Your task to perform on an android device: check android version Image 0: 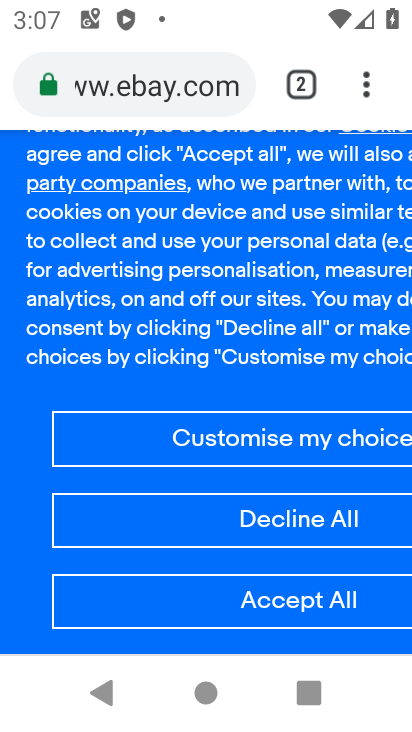
Step 0: press home button
Your task to perform on an android device: check android version Image 1: 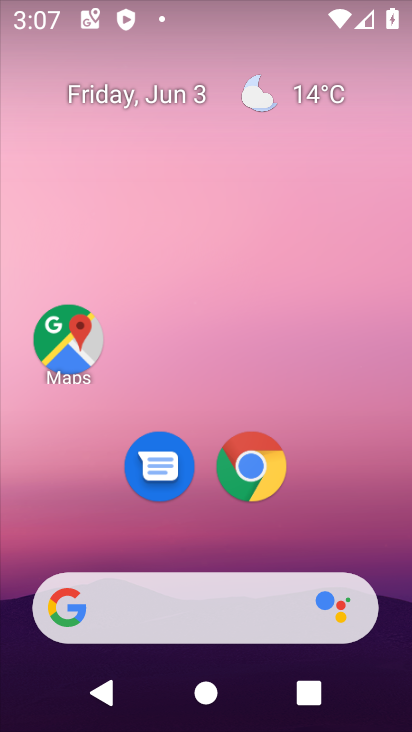
Step 1: drag from (325, 512) to (319, 221)
Your task to perform on an android device: check android version Image 2: 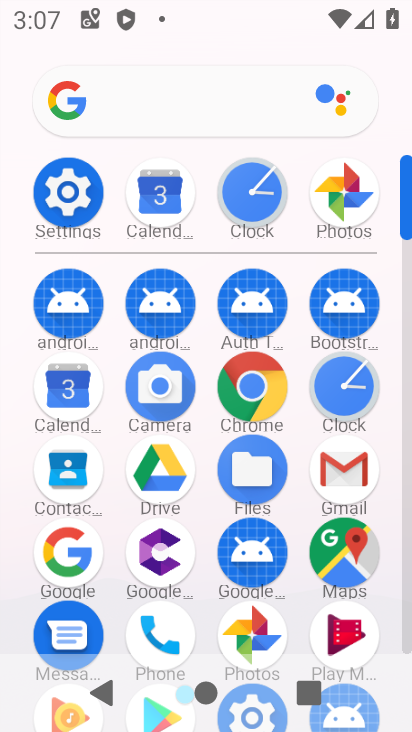
Step 2: click (87, 186)
Your task to perform on an android device: check android version Image 3: 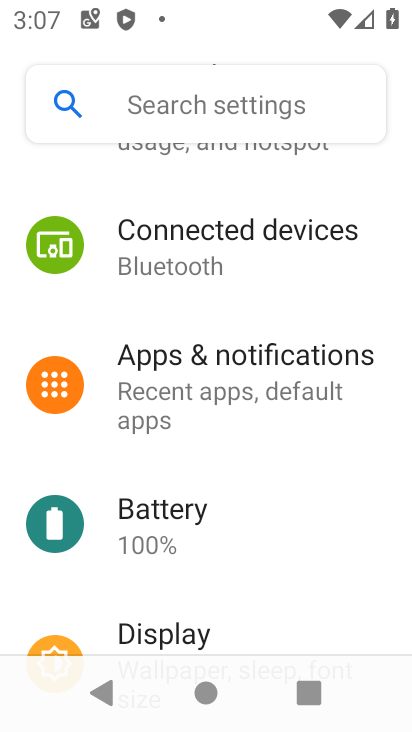
Step 3: drag from (259, 541) to (313, 266)
Your task to perform on an android device: check android version Image 4: 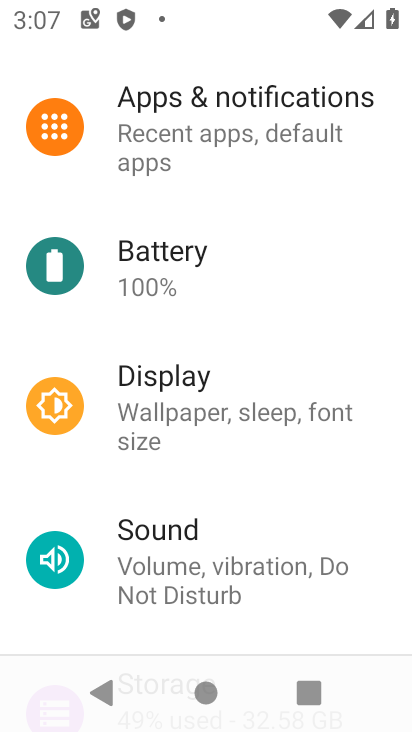
Step 4: drag from (245, 468) to (278, 216)
Your task to perform on an android device: check android version Image 5: 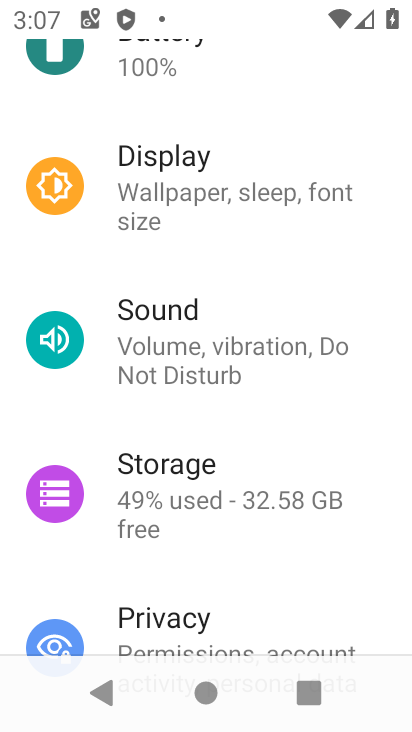
Step 5: drag from (250, 465) to (274, 183)
Your task to perform on an android device: check android version Image 6: 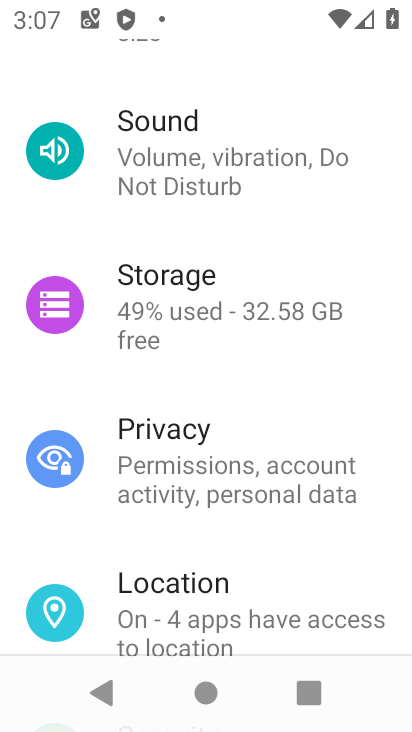
Step 6: drag from (234, 481) to (299, 118)
Your task to perform on an android device: check android version Image 7: 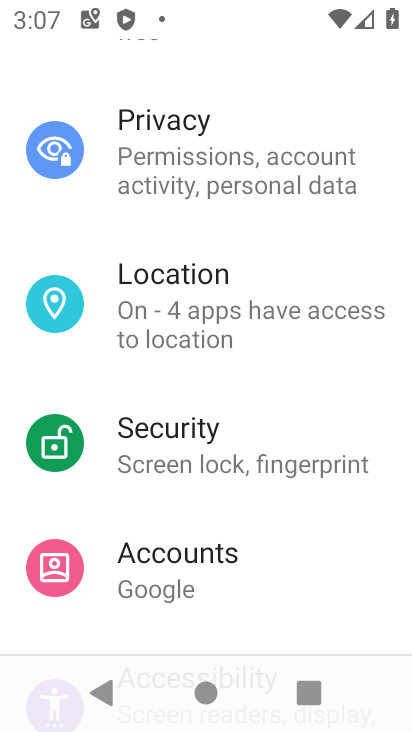
Step 7: drag from (238, 495) to (247, 110)
Your task to perform on an android device: check android version Image 8: 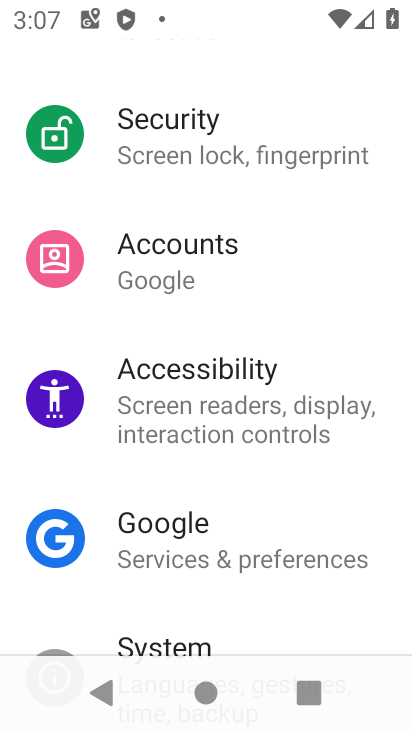
Step 8: drag from (267, 387) to (287, 94)
Your task to perform on an android device: check android version Image 9: 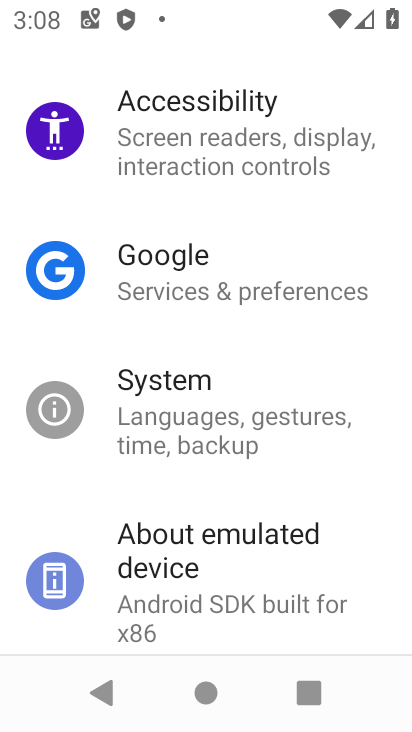
Step 9: drag from (241, 517) to (250, 39)
Your task to perform on an android device: check android version Image 10: 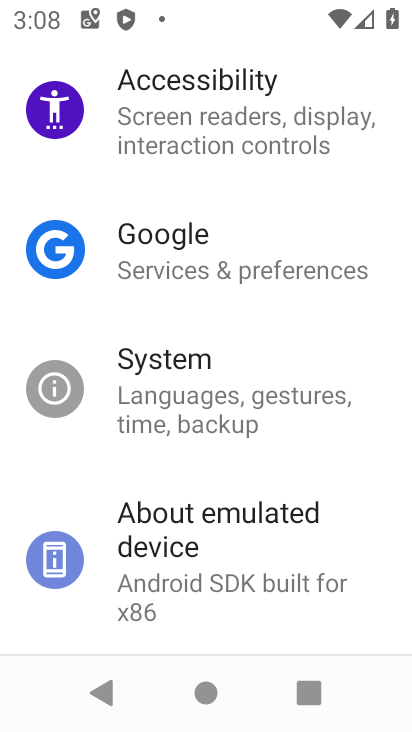
Step 10: click (206, 562)
Your task to perform on an android device: check android version Image 11: 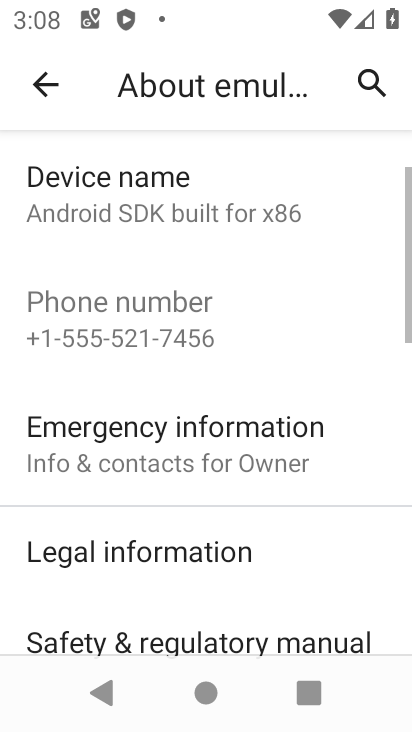
Step 11: drag from (207, 543) to (221, 118)
Your task to perform on an android device: check android version Image 12: 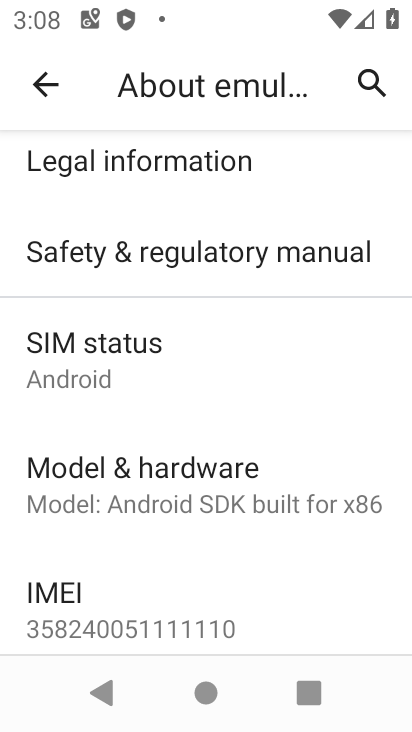
Step 12: drag from (256, 434) to (253, 89)
Your task to perform on an android device: check android version Image 13: 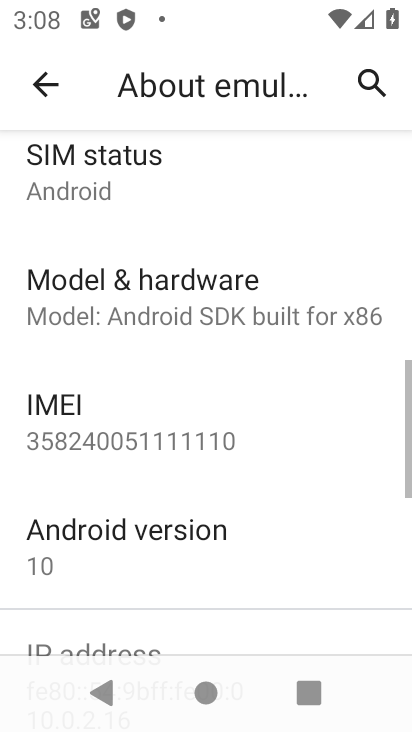
Step 13: drag from (243, 460) to (255, 176)
Your task to perform on an android device: check android version Image 14: 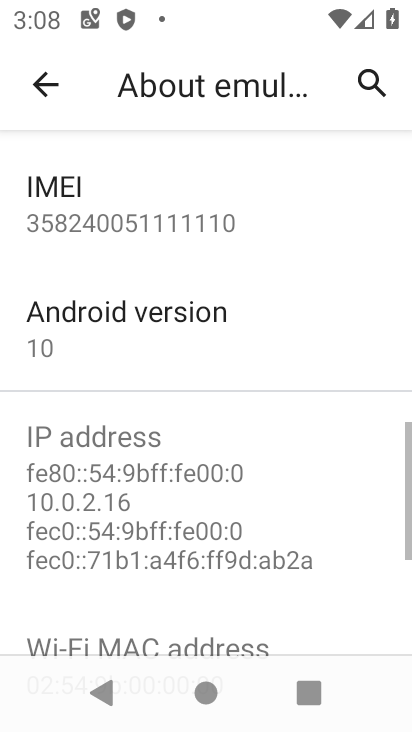
Step 14: click (349, 323)
Your task to perform on an android device: check android version Image 15: 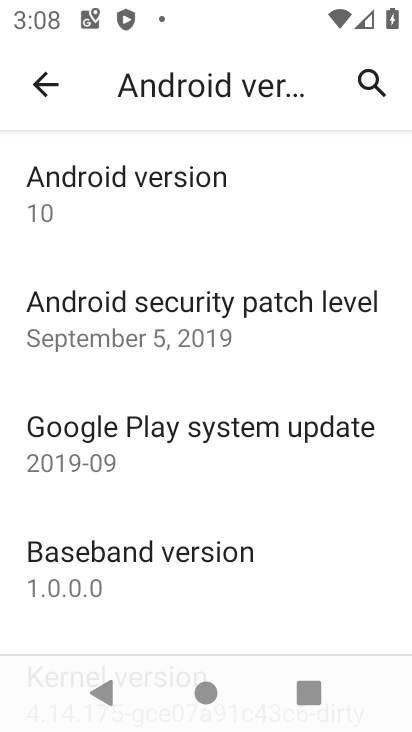
Step 15: click (300, 179)
Your task to perform on an android device: check android version Image 16: 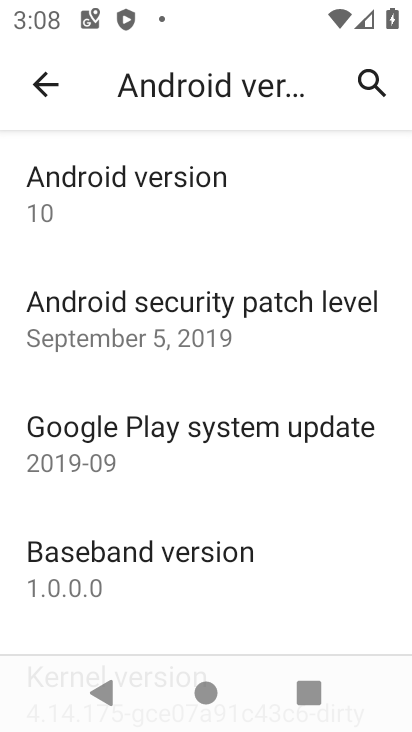
Step 16: task complete